Your task to perform on an android device: check the backup settings in the google photos Image 0: 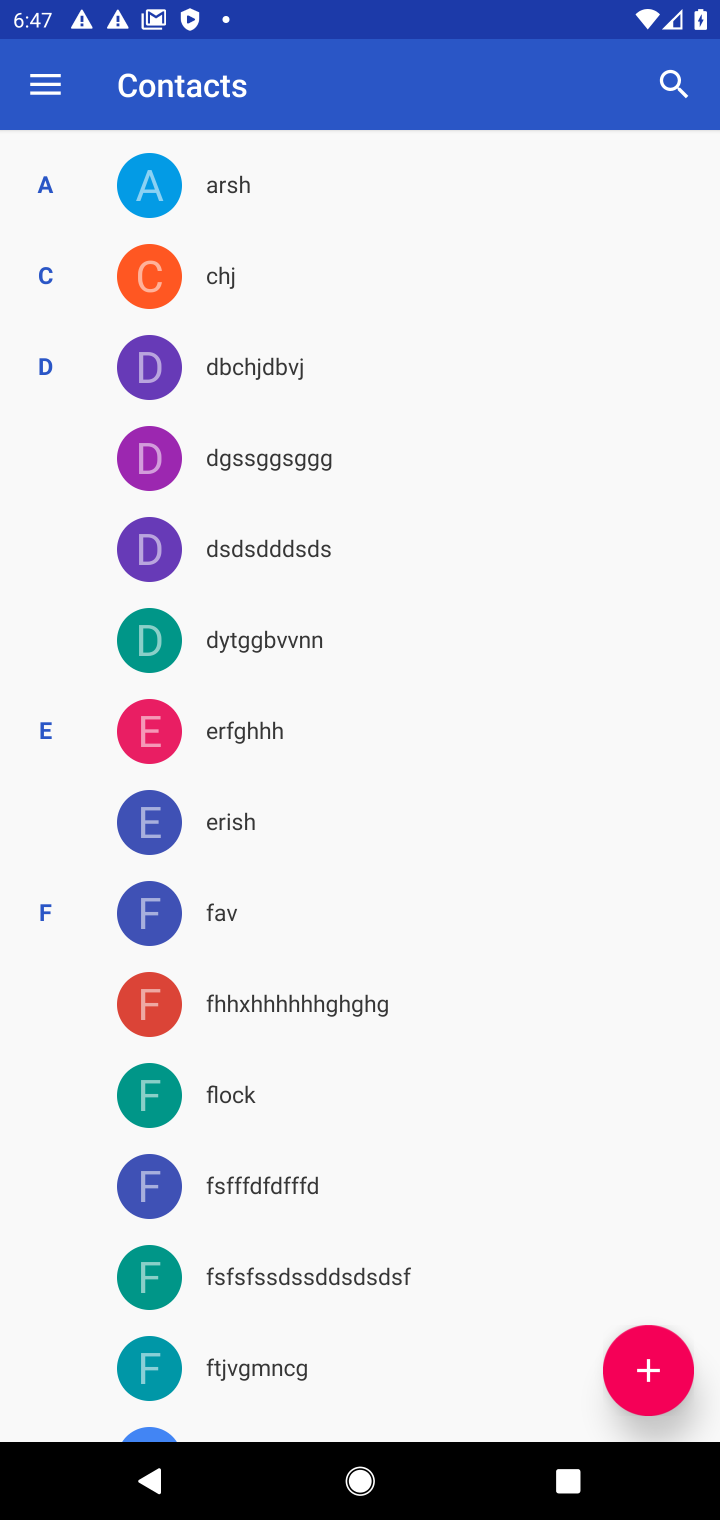
Step 0: press home button
Your task to perform on an android device: check the backup settings in the google photos Image 1: 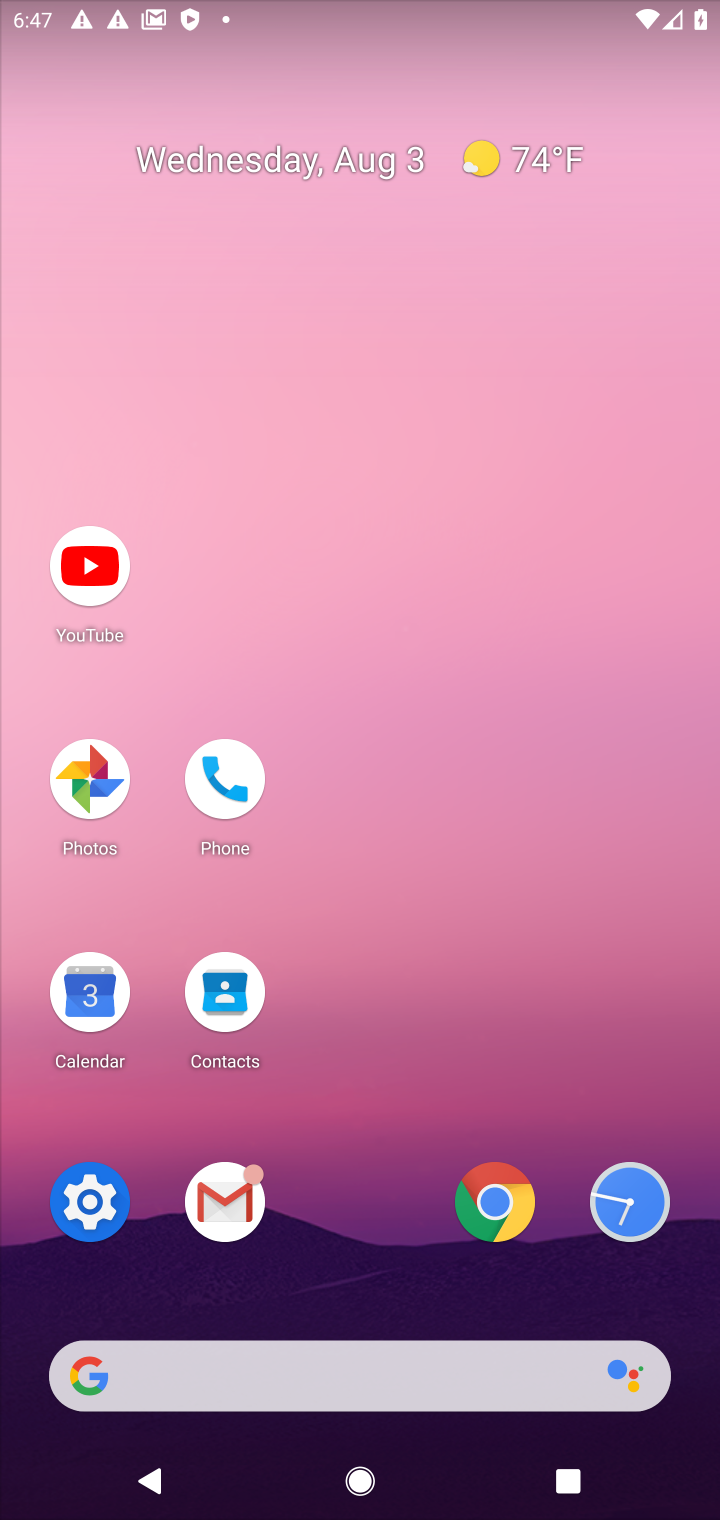
Step 1: click (93, 780)
Your task to perform on an android device: check the backup settings in the google photos Image 2: 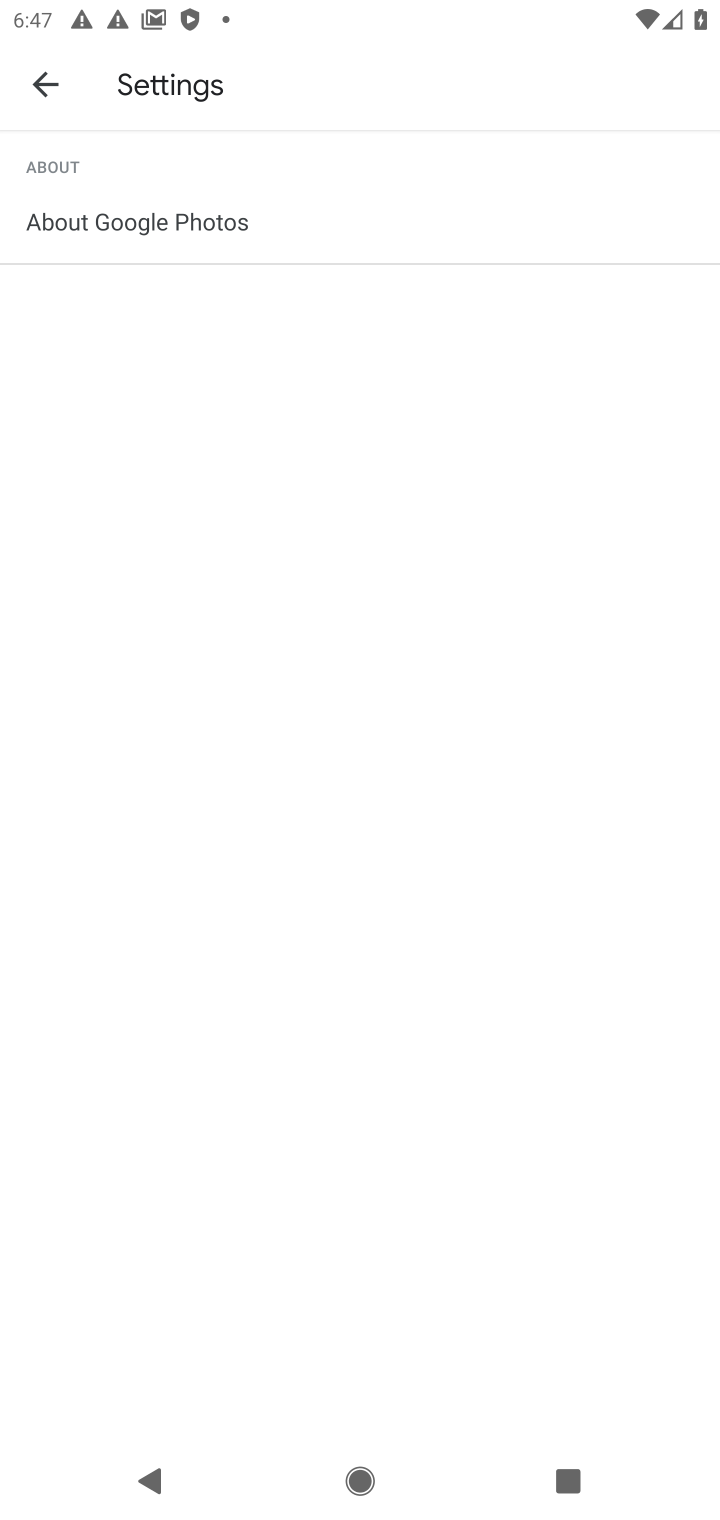
Step 2: click (34, 74)
Your task to perform on an android device: check the backup settings in the google photos Image 3: 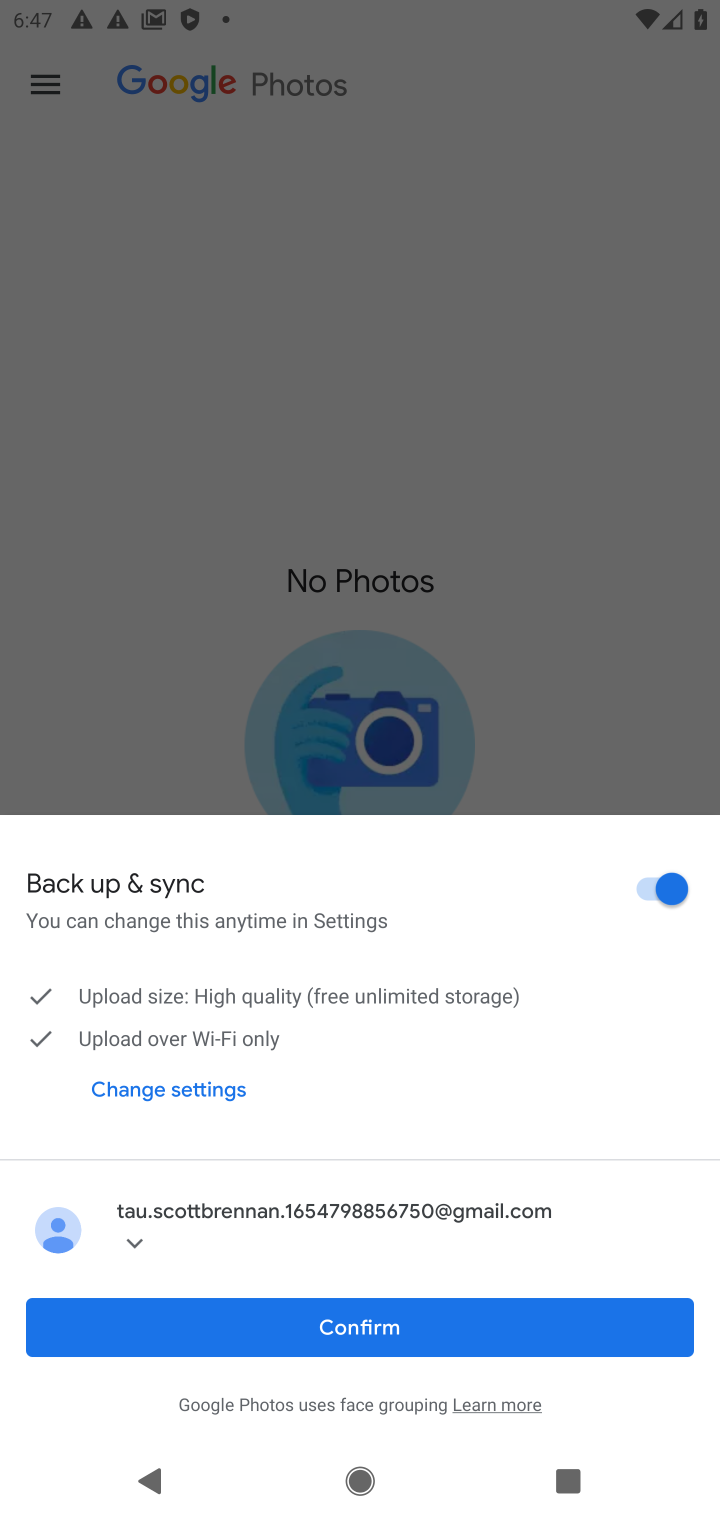
Step 3: click (370, 1327)
Your task to perform on an android device: check the backup settings in the google photos Image 4: 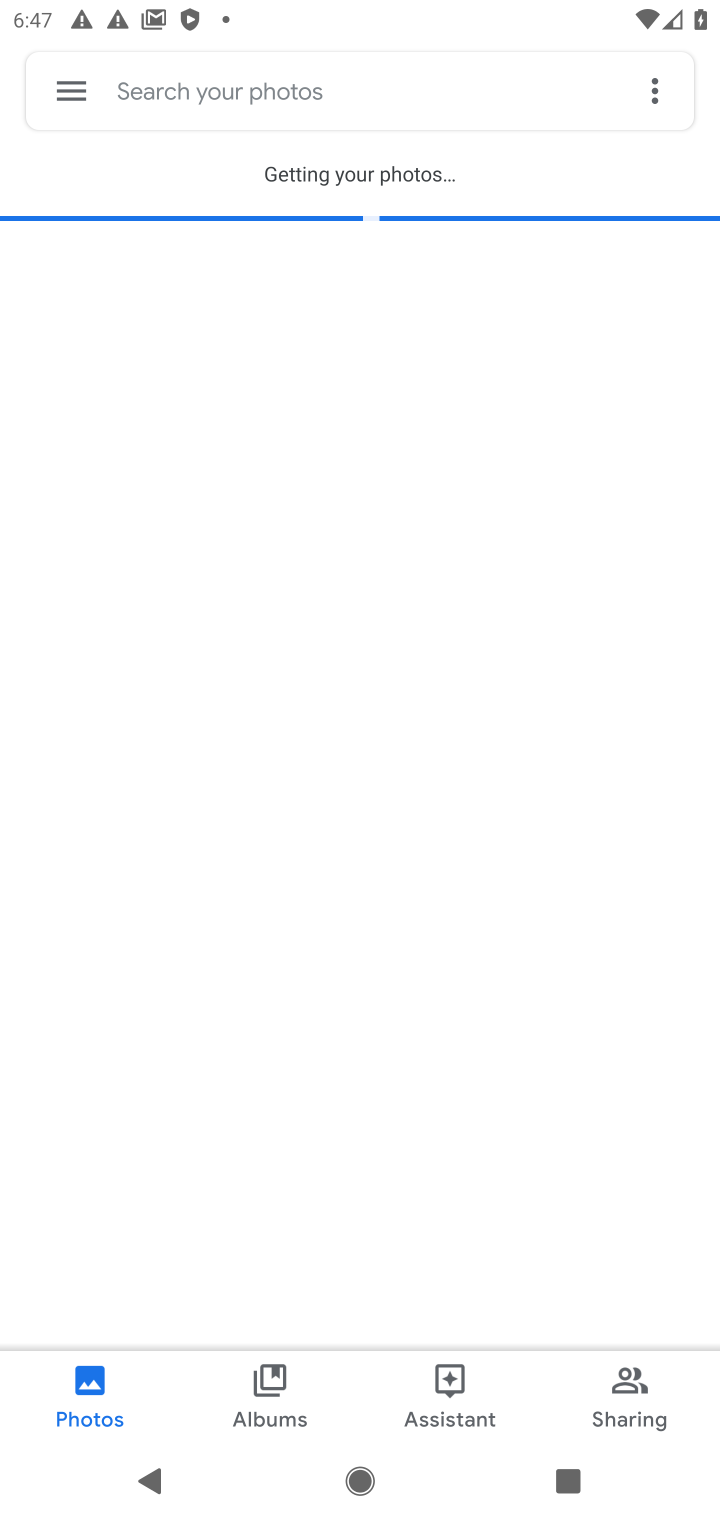
Step 4: click (68, 80)
Your task to perform on an android device: check the backup settings in the google photos Image 5: 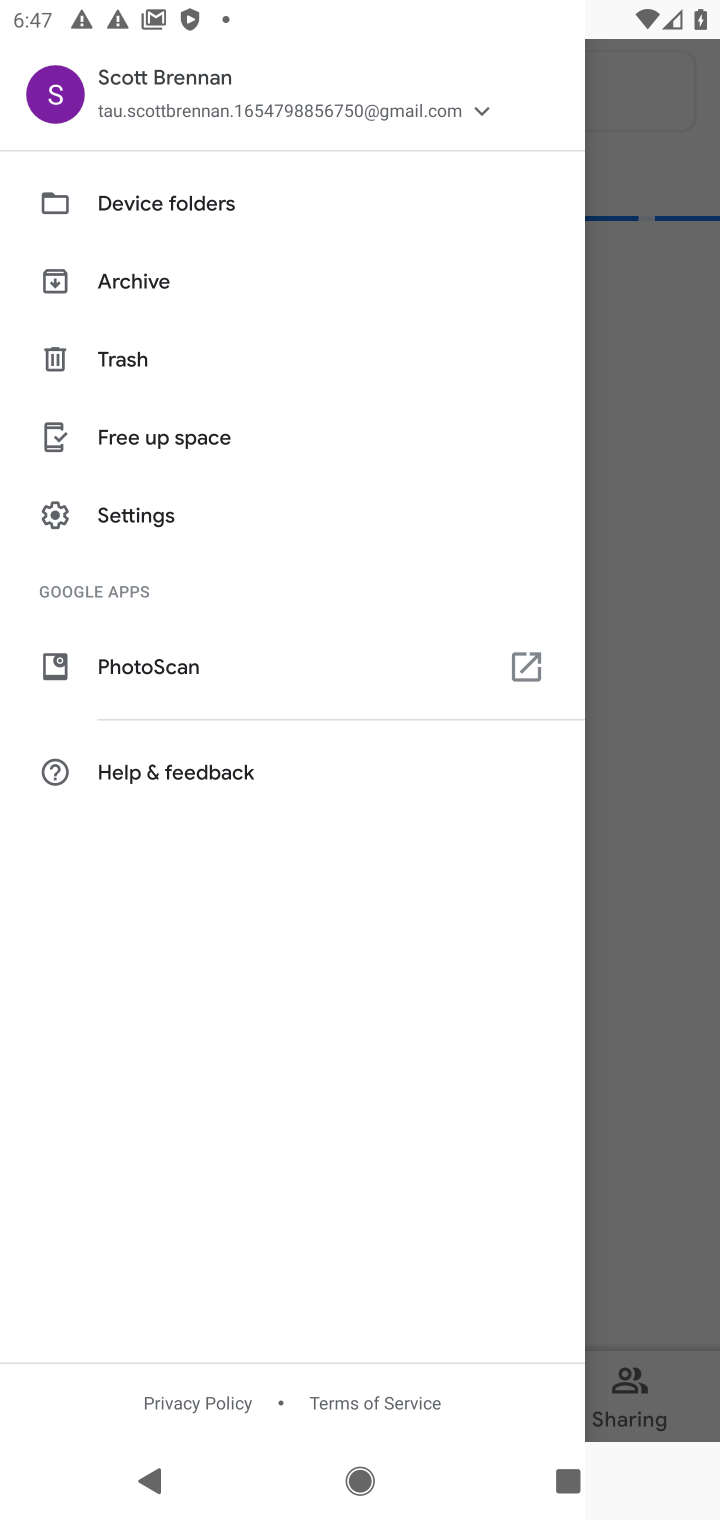
Step 5: click (129, 508)
Your task to perform on an android device: check the backup settings in the google photos Image 6: 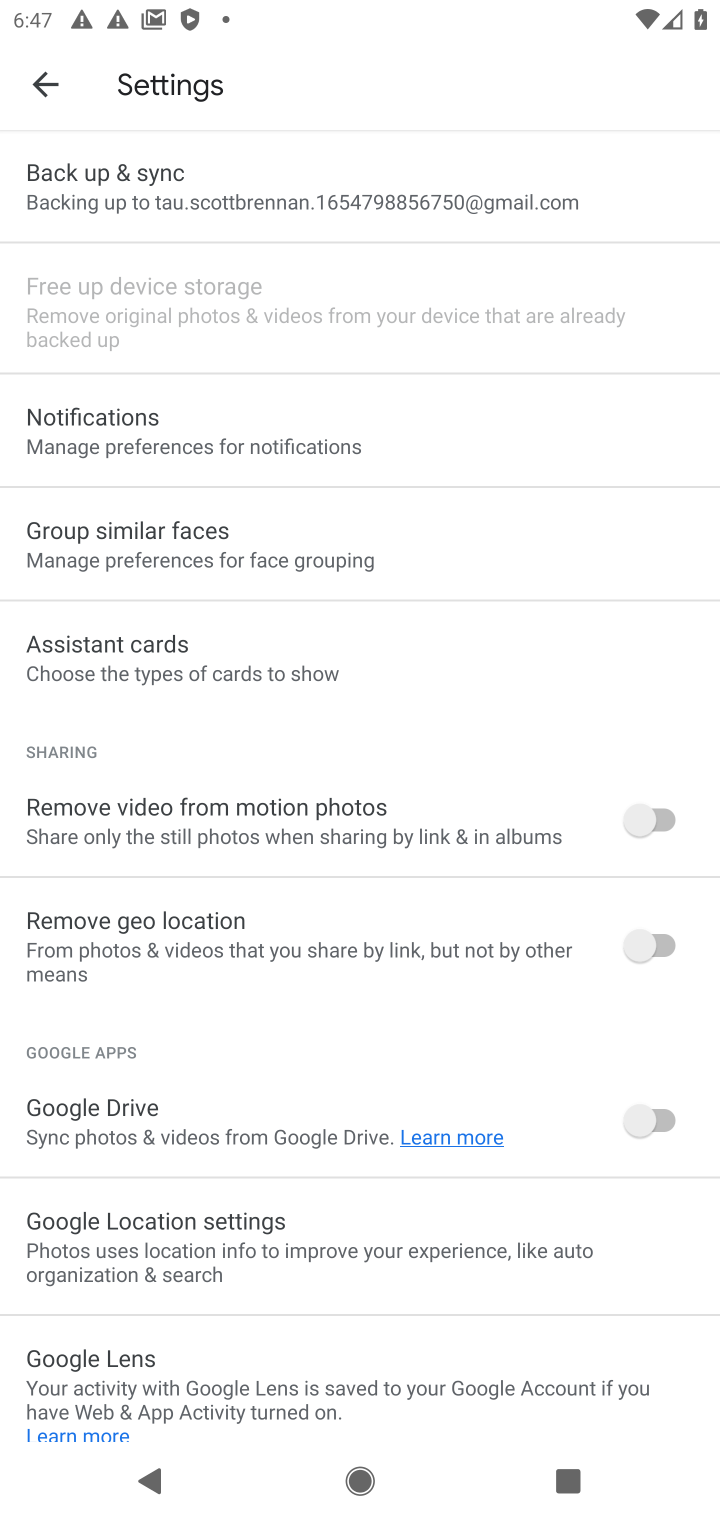
Step 6: click (144, 169)
Your task to perform on an android device: check the backup settings in the google photos Image 7: 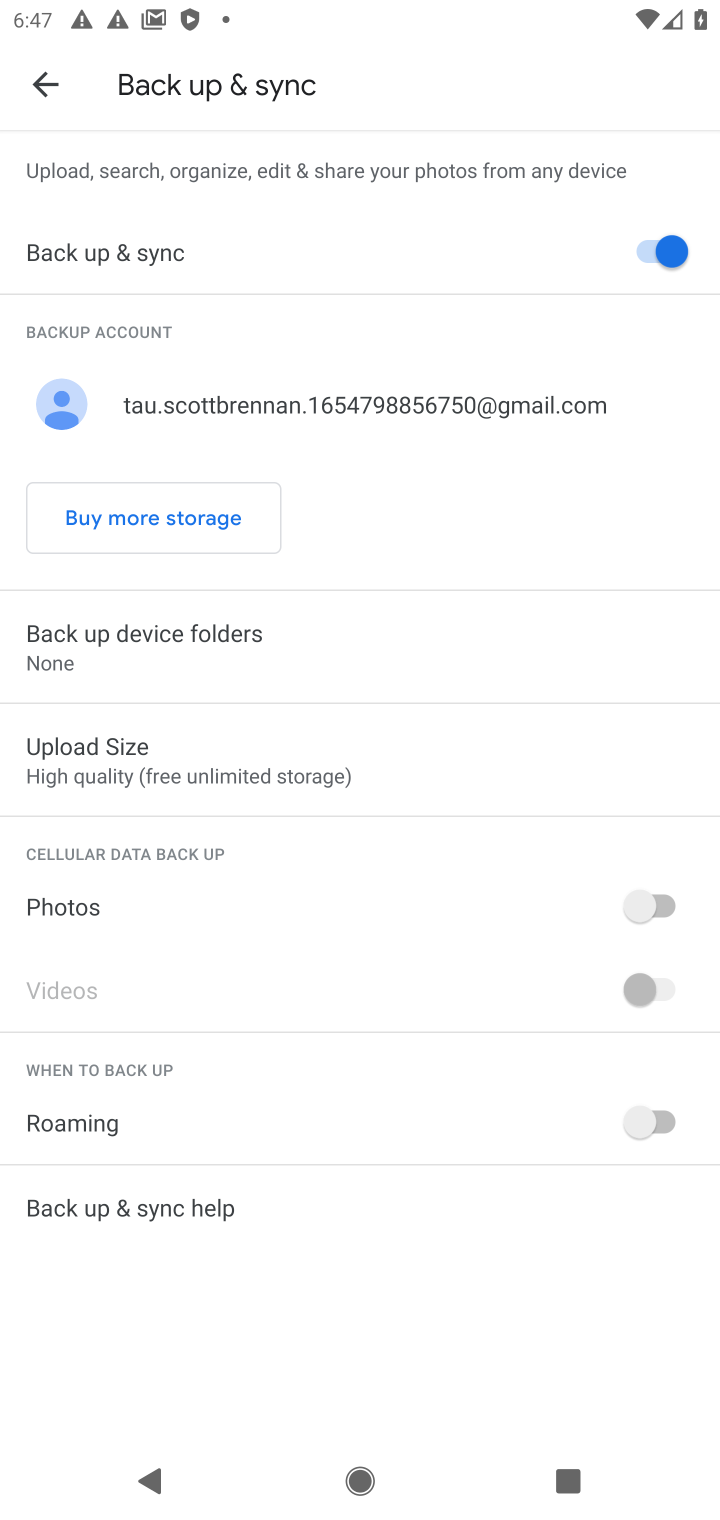
Step 7: click (162, 642)
Your task to perform on an android device: check the backup settings in the google photos Image 8: 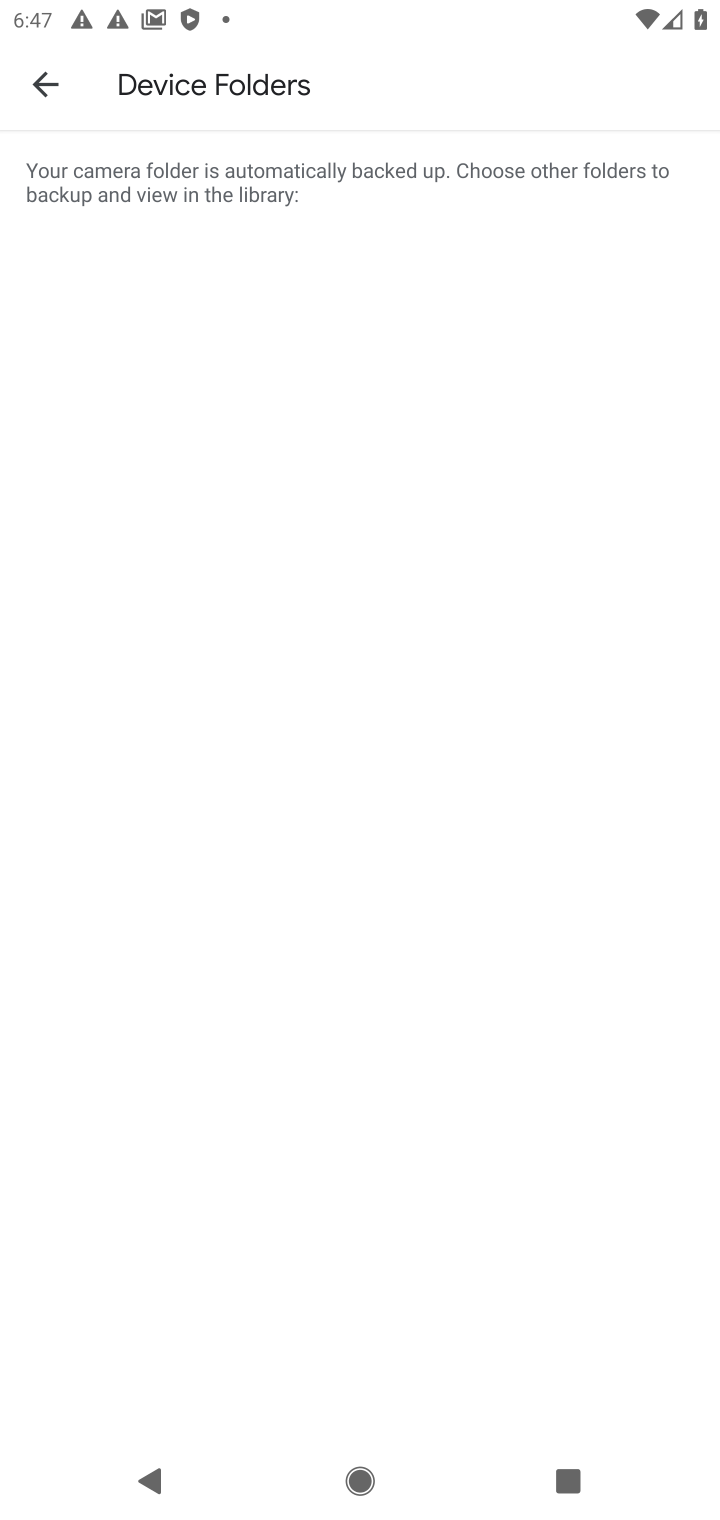
Step 8: click (37, 85)
Your task to perform on an android device: check the backup settings in the google photos Image 9: 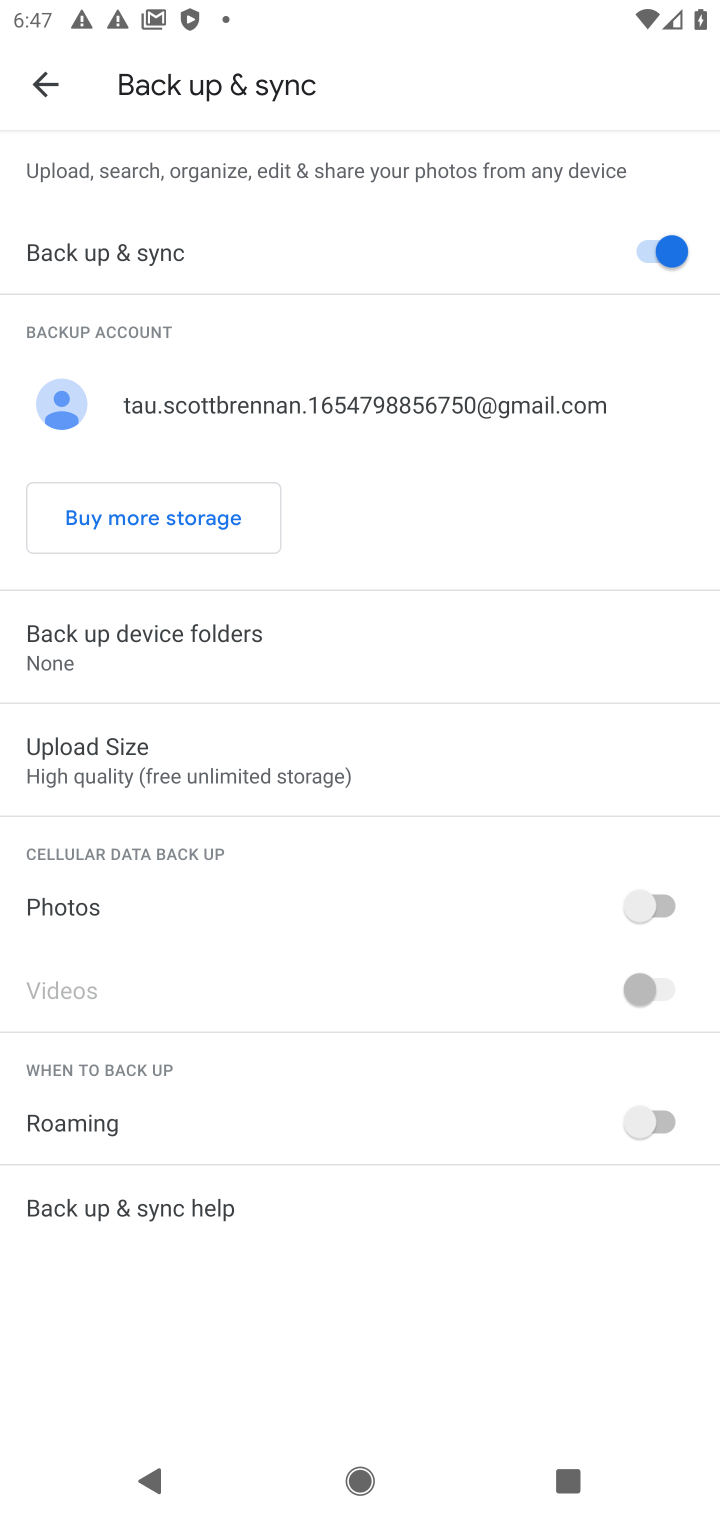
Step 9: task complete